Your task to perform on an android device: What is the news today? Image 0: 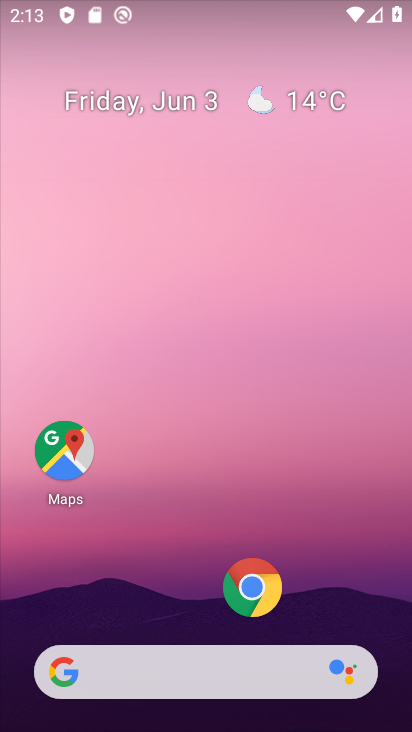
Step 0: click (177, 662)
Your task to perform on an android device: What is the news today? Image 1: 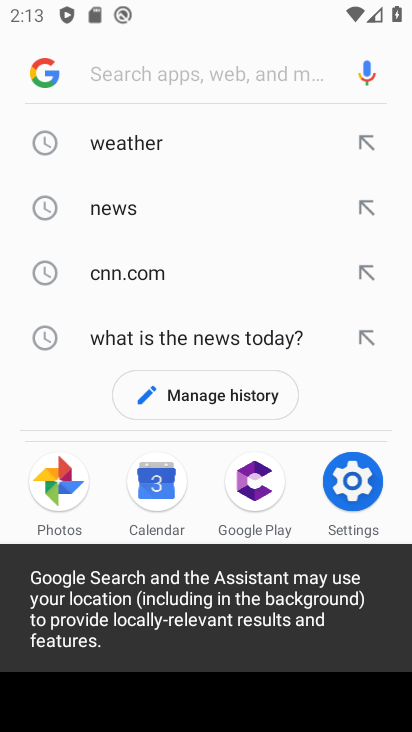
Step 1: click (121, 212)
Your task to perform on an android device: What is the news today? Image 2: 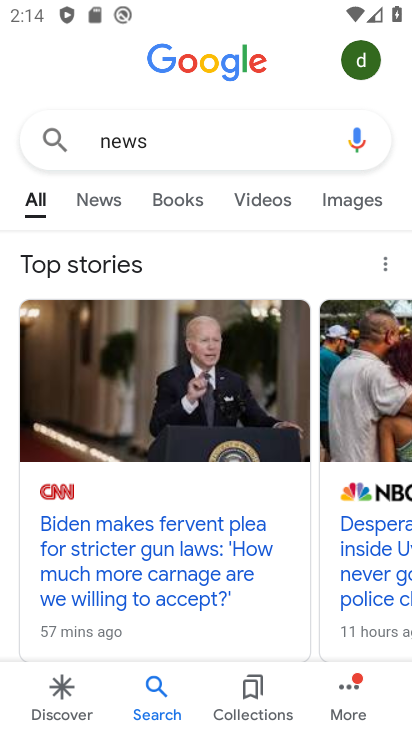
Step 2: task complete